Your task to perform on an android device: Open CNN.com Image 0: 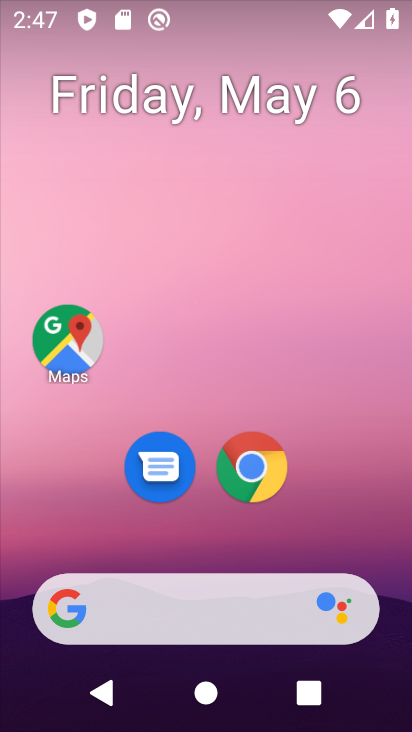
Step 0: click (193, 588)
Your task to perform on an android device: Open CNN.com Image 1: 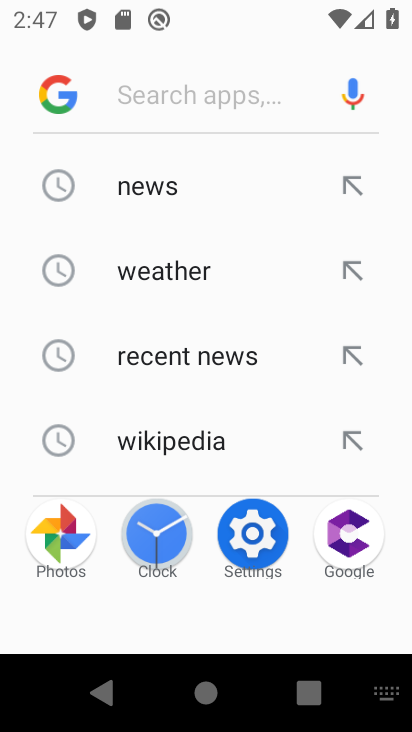
Step 1: type "cnn"
Your task to perform on an android device: Open CNN.com Image 2: 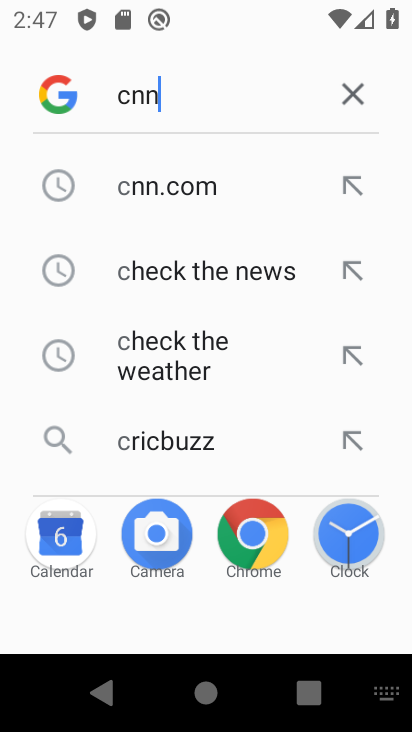
Step 2: click (147, 101)
Your task to perform on an android device: Open CNN.com Image 3: 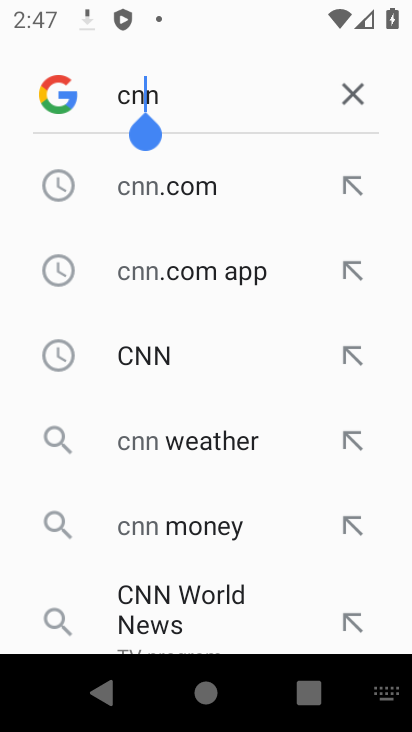
Step 3: click (159, 189)
Your task to perform on an android device: Open CNN.com Image 4: 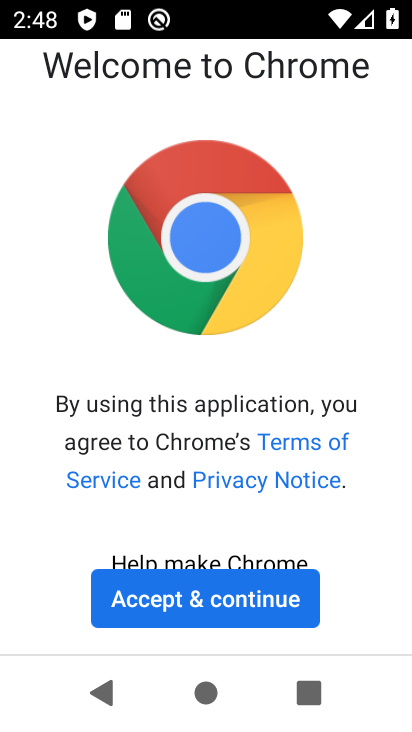
Step 4: click (222, 593)
Your task to perform on an android device: Open CNN.com Image 5: 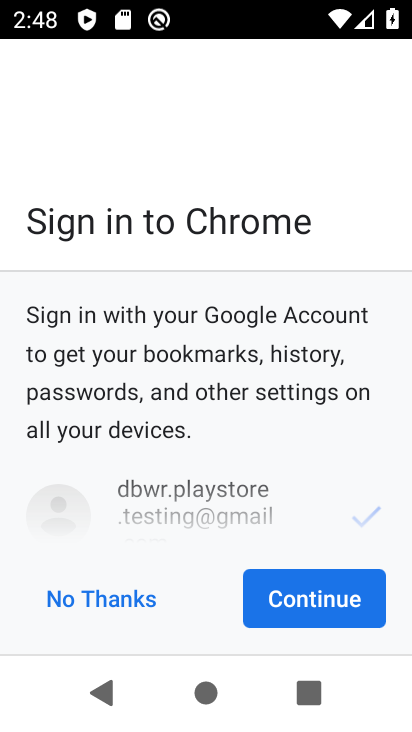
Step 5: click (288, 590)
Your task to perform on an android device: Open CNN.com Image 6: 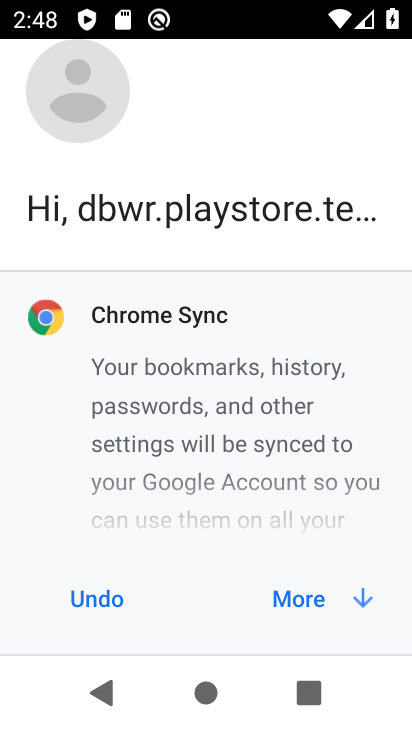
Step 6: click (291, 595)
Your task to perform on an android device: Open CNN.com Image 7: 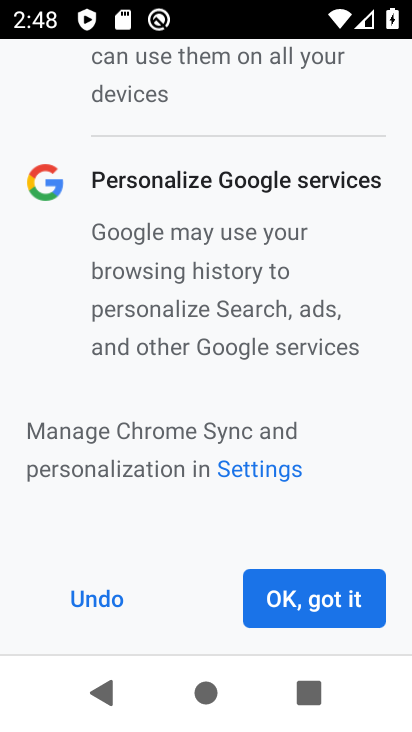
Step 7: click (291, 595)
Your task to perform on an android device: Open CNN.com Image 8: 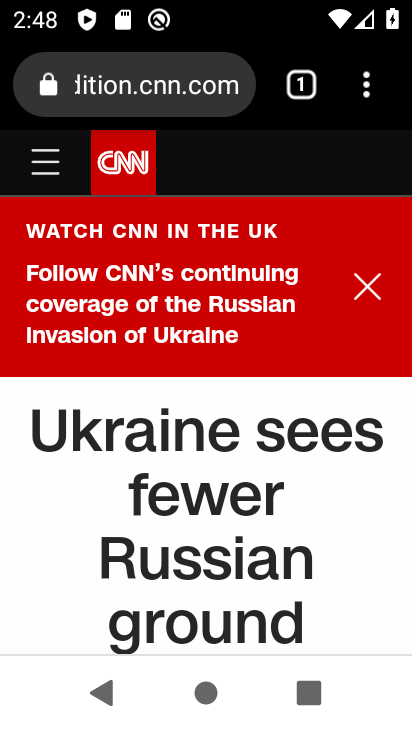
Step 8: task complete